Your task to perform on an android device: move a message to another label in the gmail app Image 0: 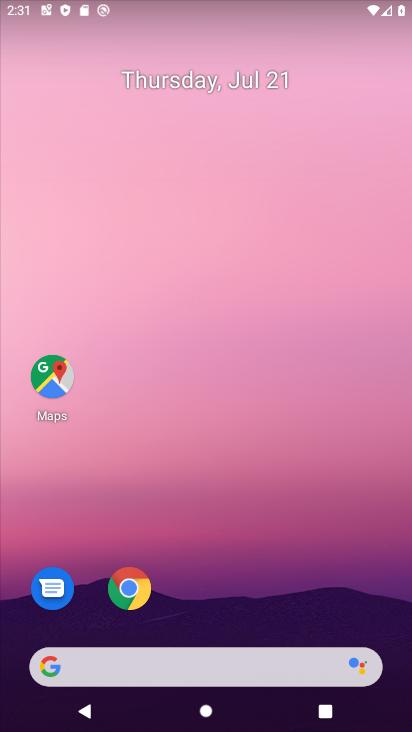
Step 0: drag from (179, 623) to (235, 178)
Your task to perform on an android device: move a message to another label in the gmail app Image 1: 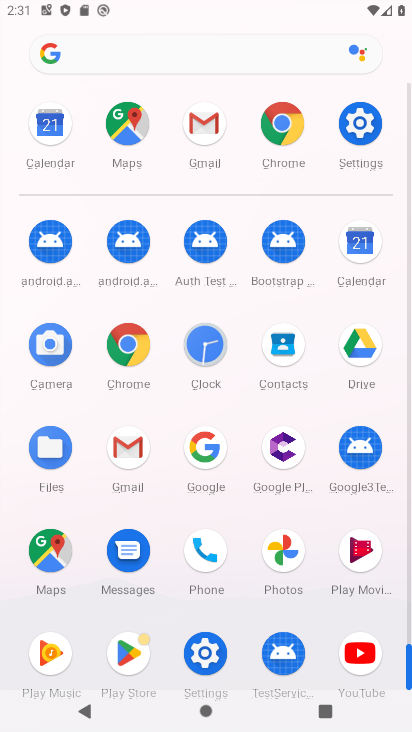
Step 1: drag from (245, 627) to (226, 258)
Your task to perform on an android device: move a message to another label in the gmail app Image 2: 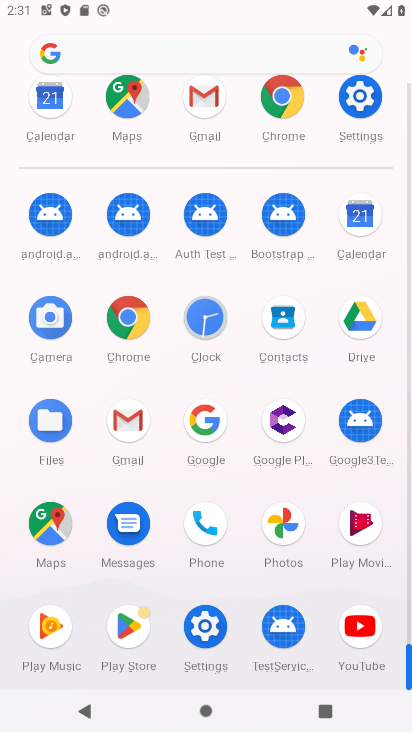
Step 2: drag from (248, 570) to (212, 104)
Your task to perform on an android device: move a message to another label in the gmail app Image 3: 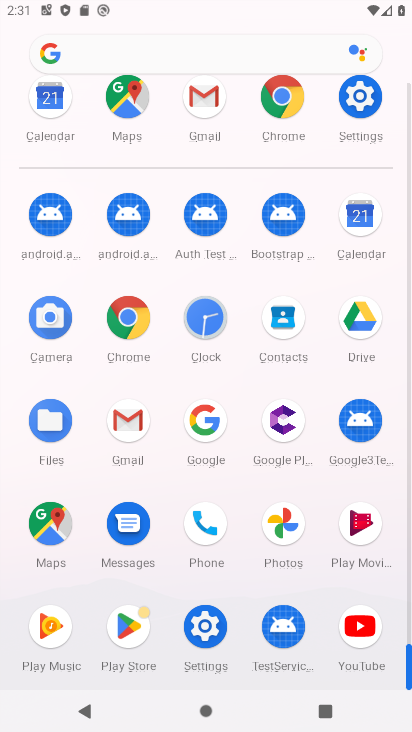
Step 3: drag from (254, 557) to (268, 347)
Your task to perform on an android device: move a message to another label in the gmail app Image 4: 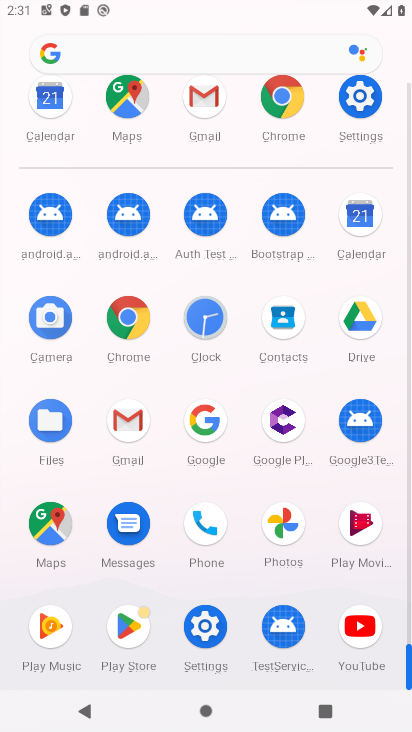
Step 4: drag from (246, 603) to (249, 305)
Your task to perform on an android device: move a message to another label in the gmail app Image 5: 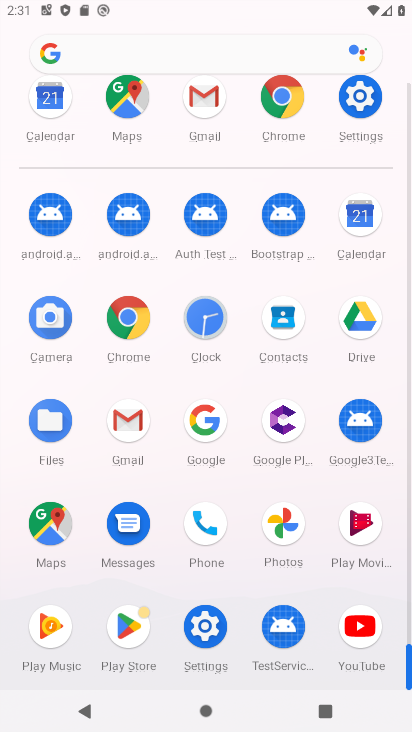
Step 5: click (129, 430)
Your task to perform on an android device: move a message to another label in the gmail app Image 6: 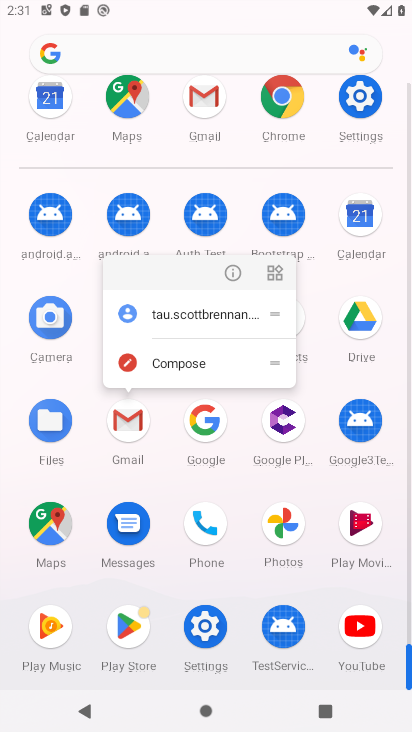
Step 6: click (233, 272)
Your task to perform on an android device: move a message to another label in the gmail app Image 7: 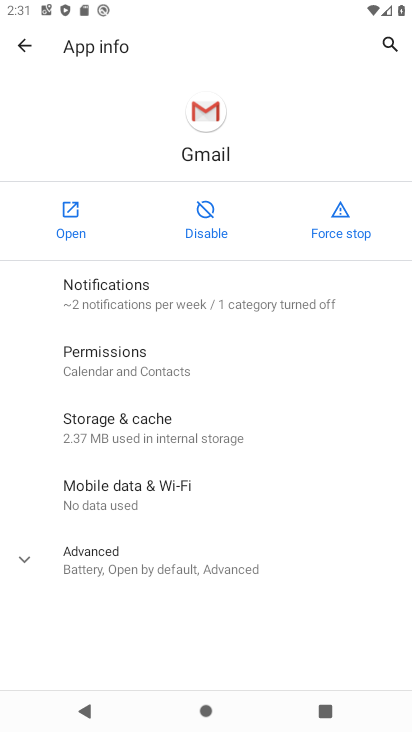
Step 7: click (76, 221)
Your task to perform on an android device: move a message to another label in the gmail app Image 8: 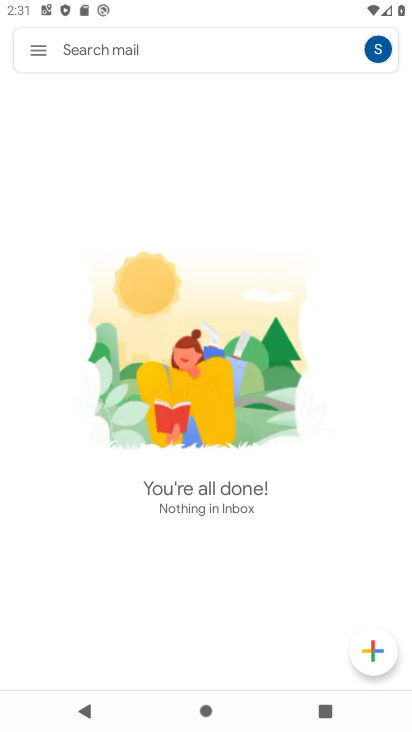
Step 8: drag from (225, 495) to (213, 215)
Your task to perform on an android device: move a message to another label in the gmail app Image 9: 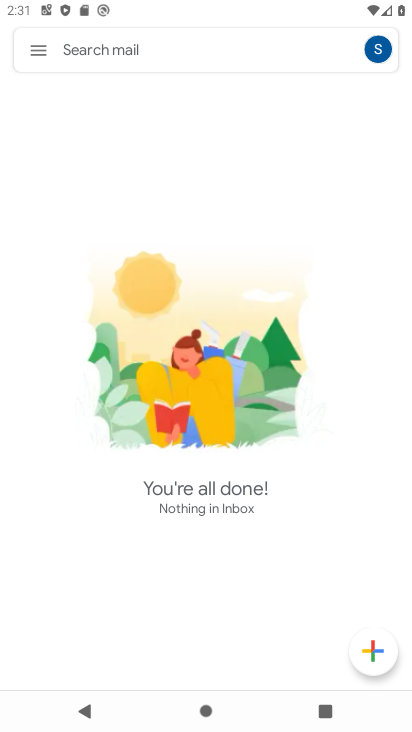
Step 9: click (28, 34)
Your task to perform on an android device: move a message to another label in the gmail app Image 10: 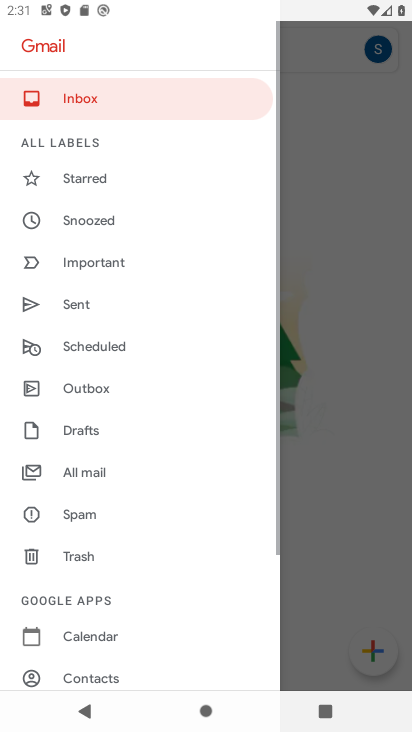
Step 10: drag from (121, 597) to (172, 160)
Your task to perform on an android device: move a message to another label in the gmail app Image 11: 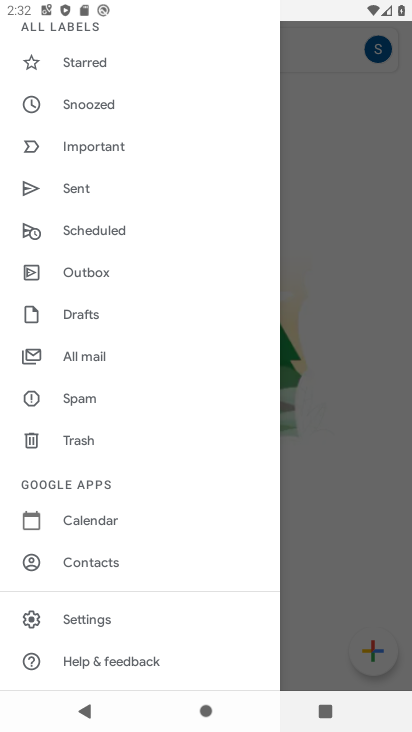
Step 11: drag from (127, 265) to (170, 691)
Your task to perform on an android device: move a message to another label in the gmail app Image 12: 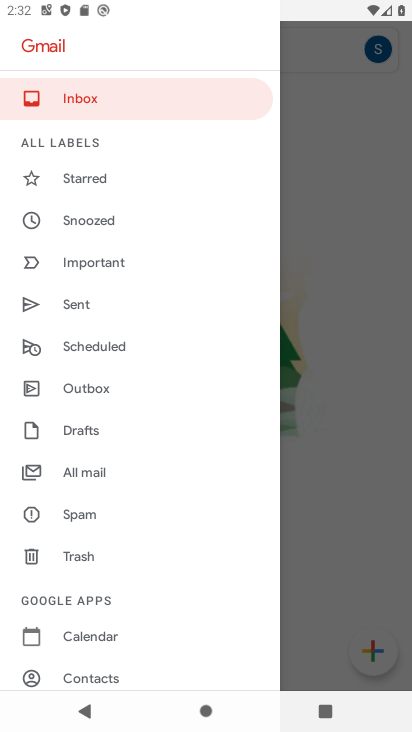
Step 12: drag from (123, 141) to (133, 608)
Your task to perform on an android device: move a message to another label in the gmail app Image 13: 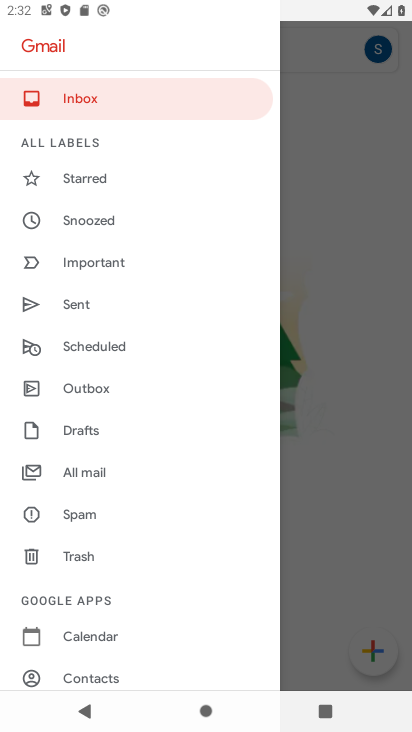
Step 13: drag from (146, 593) to (207, 226)
Your task to perform on an android device: move a message to another label in the gmail app Image 14: 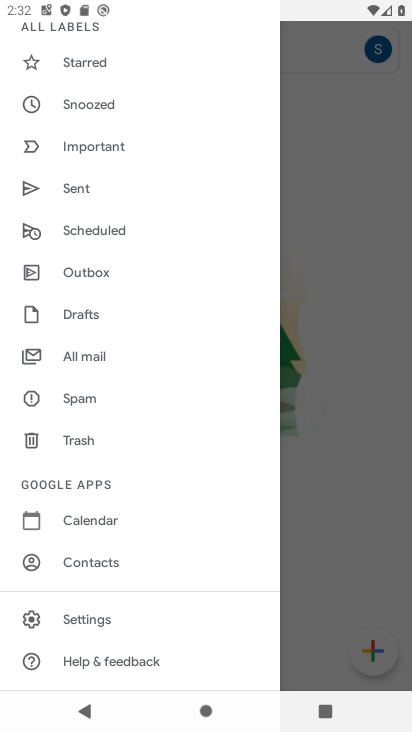
Step 14: drag from (109, 613) to (189, 232)
Your task to perform on an android device: move a message to another label in the gmail app Image 15: 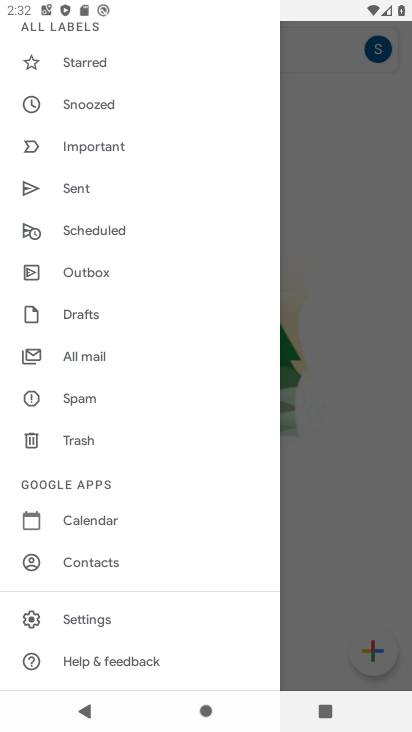
Step 15: click (315, 542)
Your task to perform on an android device: move a message to another label in the gmail app Image 16: 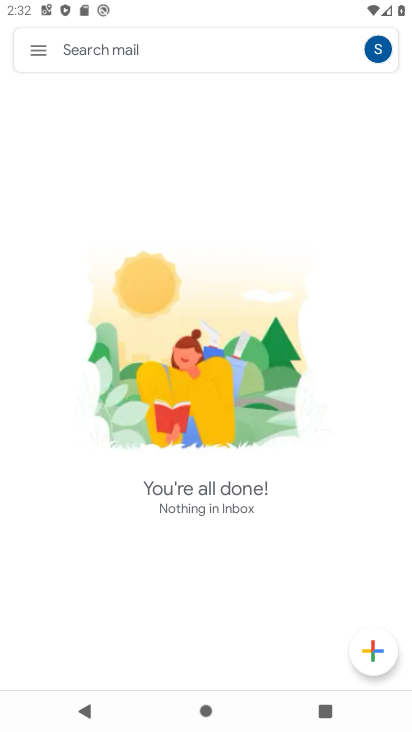
Step 16: click (152, 273)
Your task to perform on an android device: move a message to another label in the gmail app Image 17: 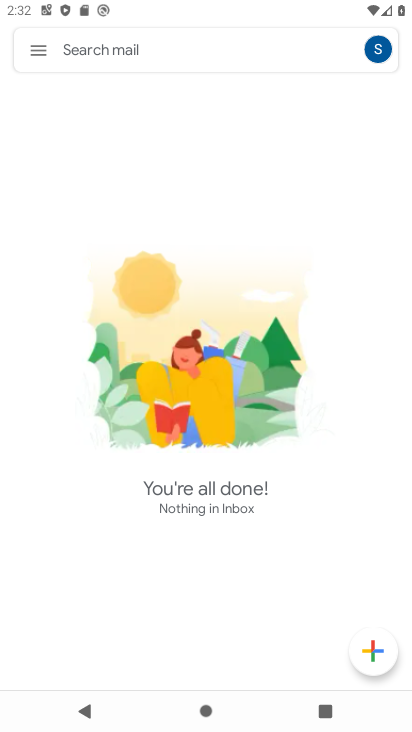
Step 17: click (236, 470)
Your task to perform on an android device: move a message to another label in the gmail app Image 18: 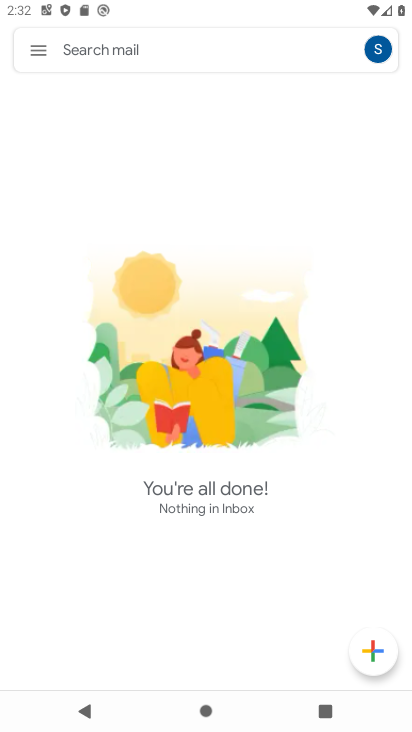
Step 18: task complete